Your task to perform on an android device: turn off wifi Image 0: 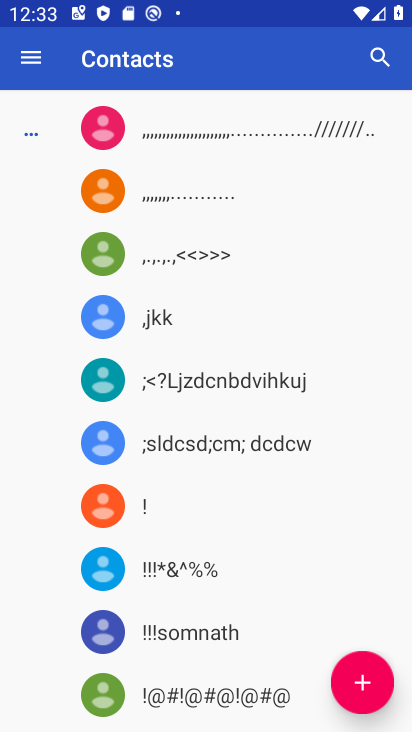
Step 0: press home button
Your task to perform on an android device: turn off wifi Image 1: 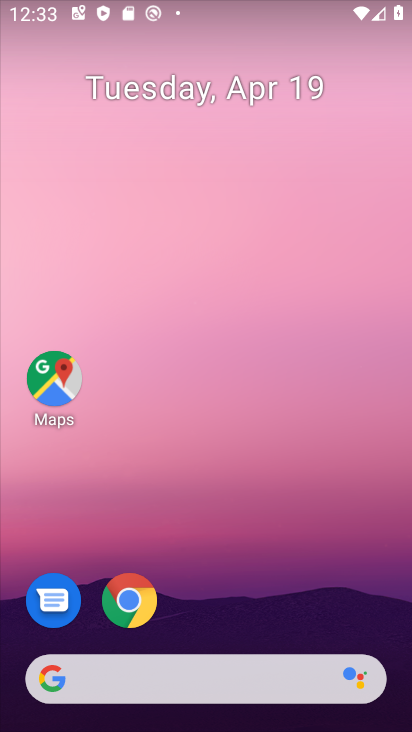
Step 1: drag from (268, 487) to (247, 72)
Your task to perform on an android device: turn off wifi Image 2: 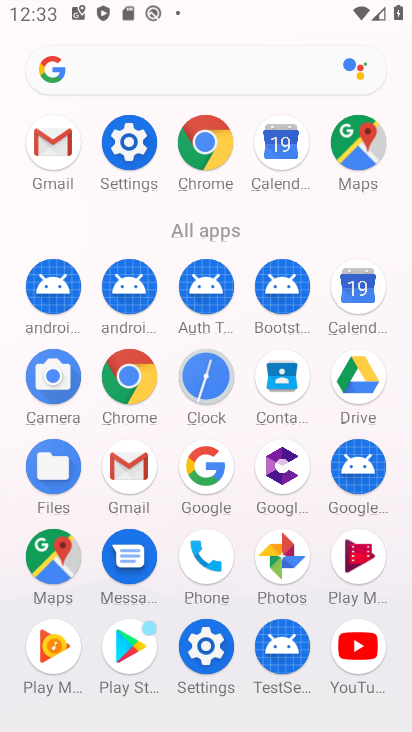
Step 2: click (120, 138)
Your task to perform on an android device: turn off wifi Image 3: 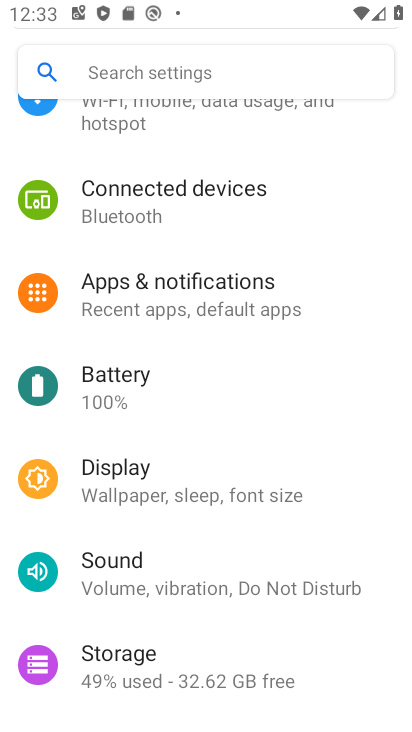
Step 3: drag from (188, 271) to (260, 530)
Your task to perform on an android device: turn off wifi Image 4: 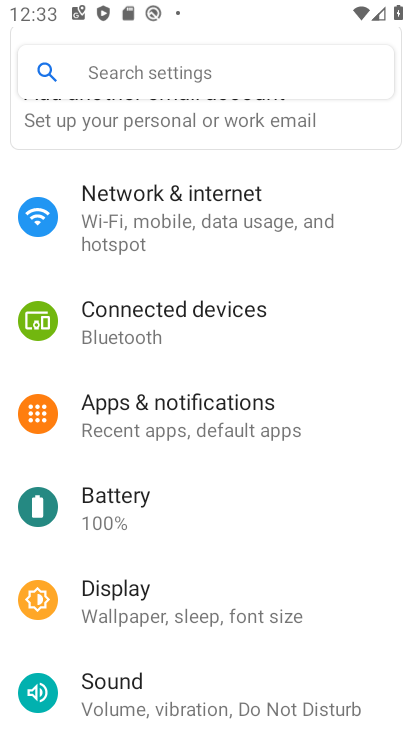
Step 4: drag from (209, 217) to (243, 477)
Your task to perform on an android device: turn off wifi Image 5: 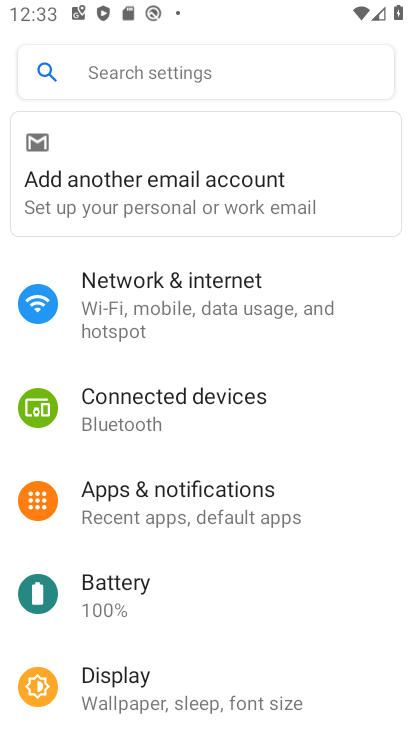
Step 5: click (185, 318)
Your task to perform on an android device: turn off wifi Image 6: 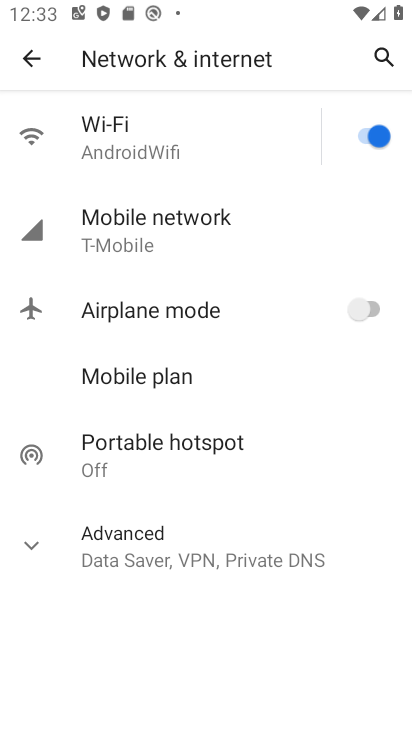
Step 6: click (359, 142)
Your task to perform on an android device: turn off wifi Image 7: 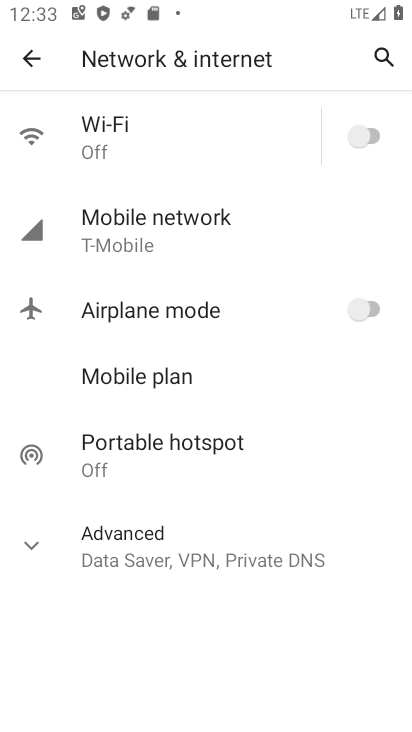
Step 7: task complete